Your task to perform on an android device: Check the weather Image 0: 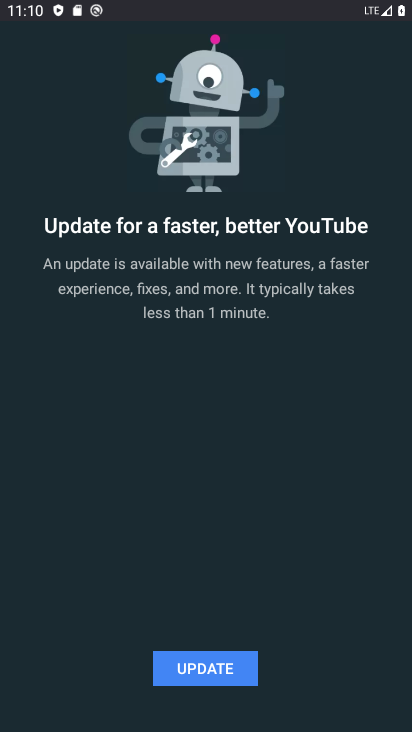
Step 0: press home button
Your task to perform on an android device: Check the weather Image 1: 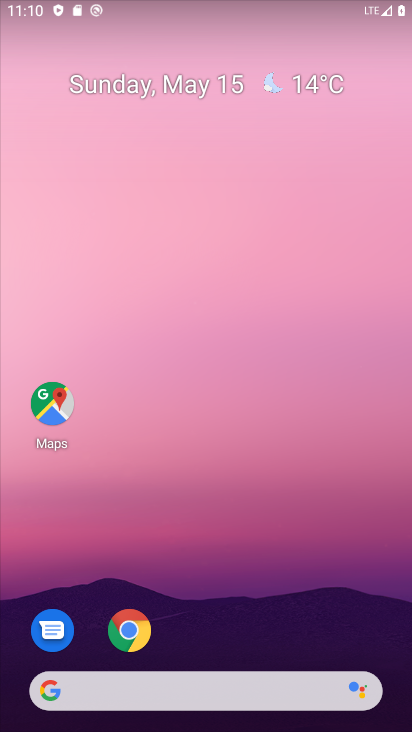
Step 1: click (270, 510)
Your task to perform on an android device: Check the weather Image 2: 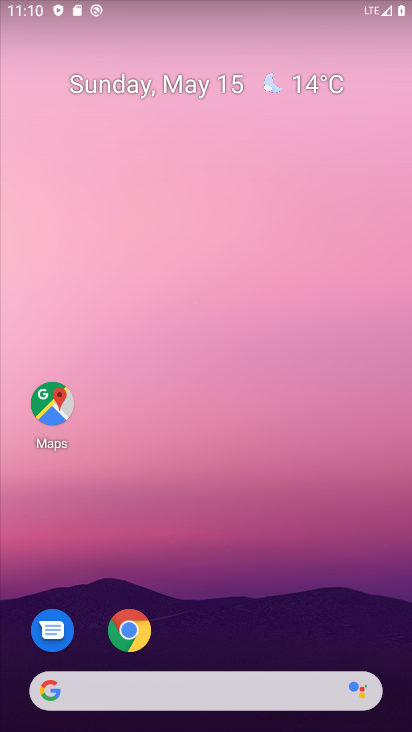
Step 2: click (210, 682)
Your task to perform on an android device: Check the weather Image 3: 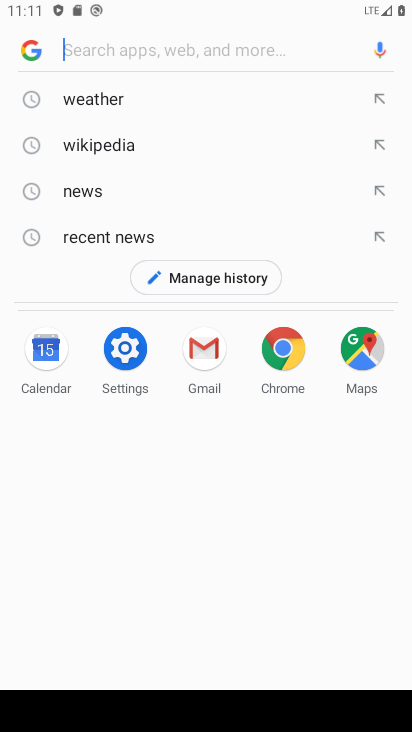
Step 3: click (79, 104)
Your task to perform on an android device: Check the weather Image 4: 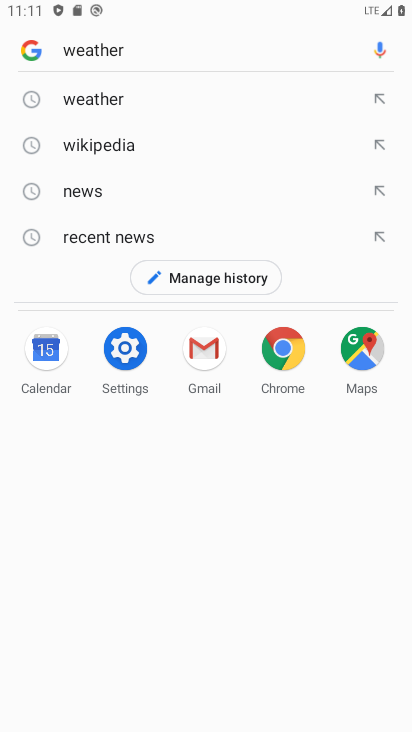
Step 4: click (212, 635)
Your task to perform on an android device: Check the weather Image 5: 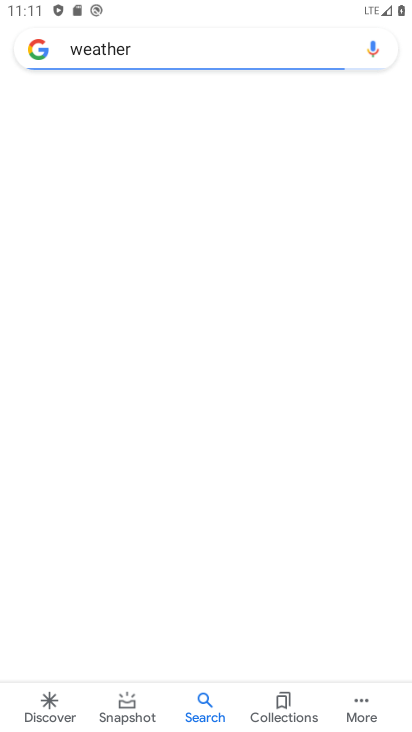
Step 5: click (209, 630)
Your task to perform on an android device: Check the weather Image 6: 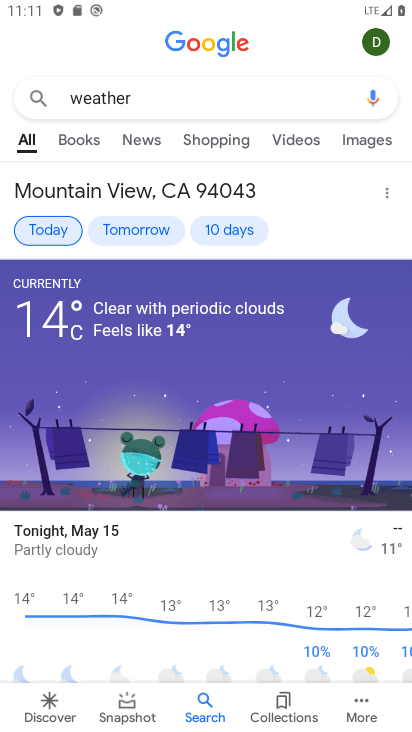
Step 6: task complete